Your task to perform on an android device: Find coffee shops on Maps Image 0: 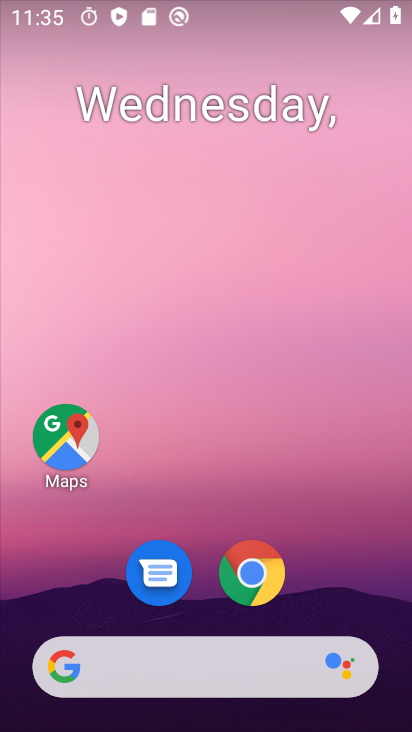
Step 0: drag from (380, 634) to (366, 203)
Your task to perform on an android device: Find coffee shops on Maps Image 1: 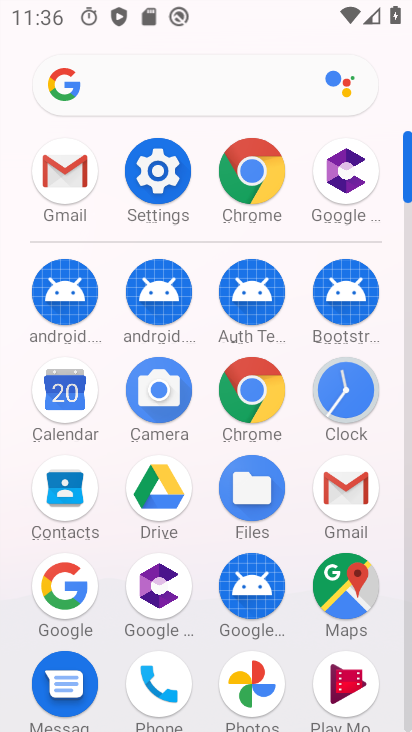
Step 1: click (356, 573)
Your task to perform on an android device: Find coffee shops on Maps Image 2: 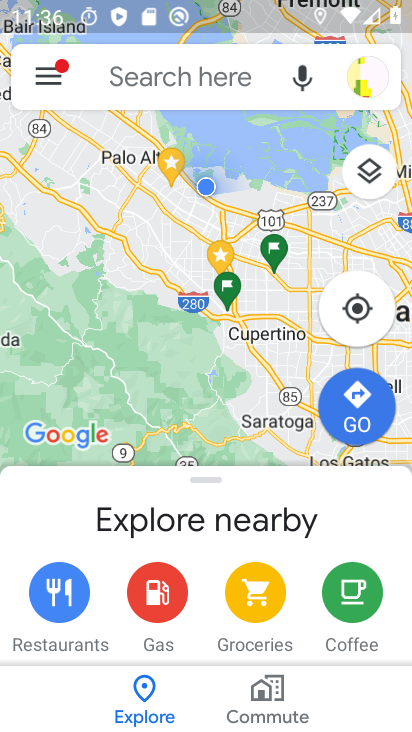
Step 2: click (47, 73)
Your task to perform on an android device: Find coffee shops on Maps Image 3: 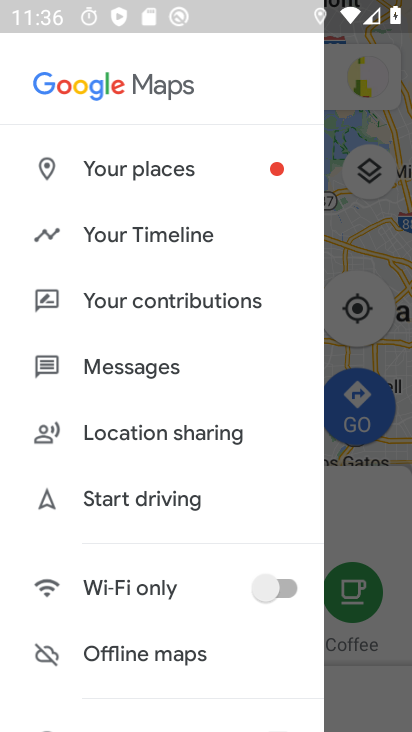
Step 3: click (365, 196)
Your task to perform on an android device: Find coffee shops on Maps Image 4: 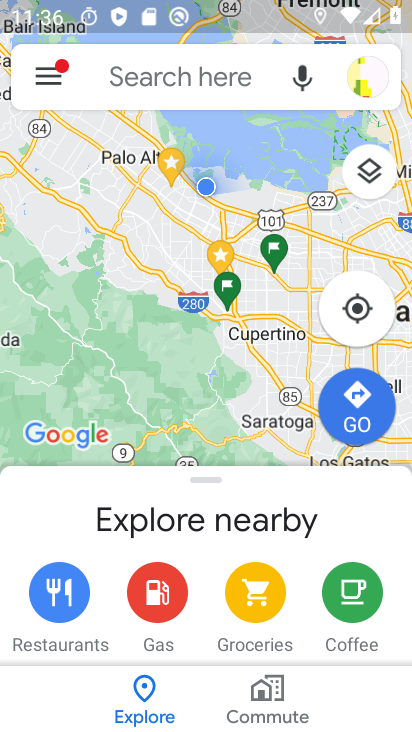
Step 4: click (113, 71)
Your task to perform on an android device: Find coffee shops on Maps Image 5: 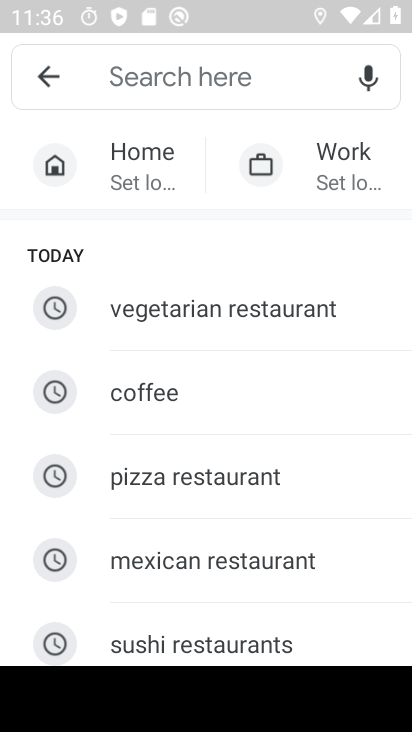
Step 5: type "coffee shops"
Your task to perform on an android device: Find coffee shops on Maps Image 6: 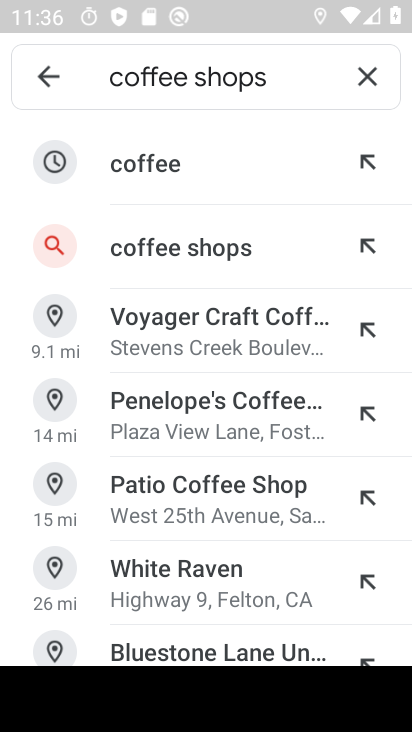
Step 6: click (192, 247)
Your task to perform on an android device: Find coffee shops on Maps Image 7: 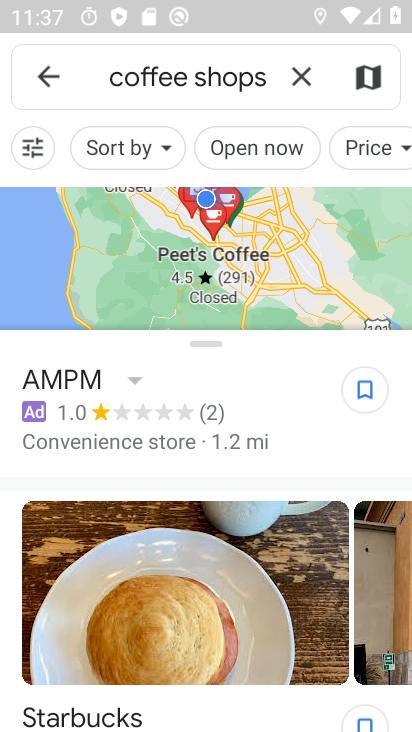
Step 7: task complete